Your task to perform on an android device: toggle translation in the chrome app Image 0: 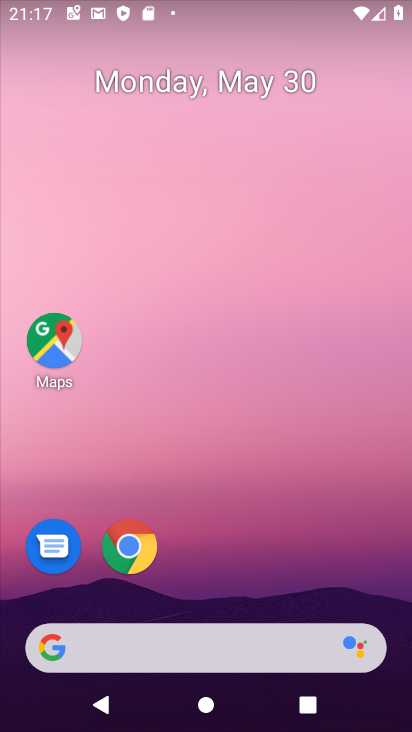
Step 0: drag from (291, 520) to (256, 130)
Your task to perform on an android device: toggle translation in the chrome app Image 1: 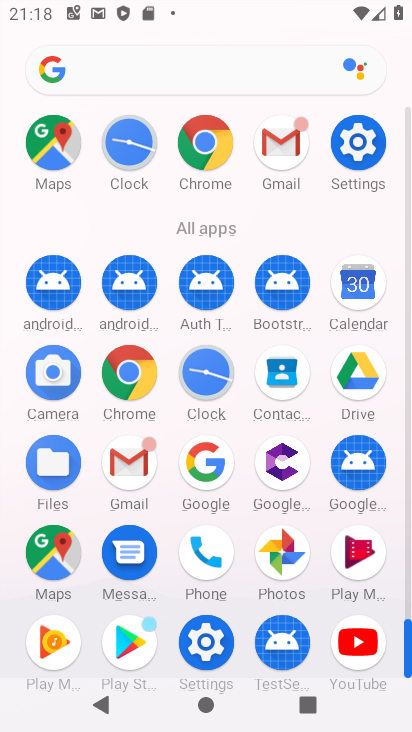
Step 1: click (129, 382)
Your task to perform on an android device: toggle translation in the chrome app Image 2: 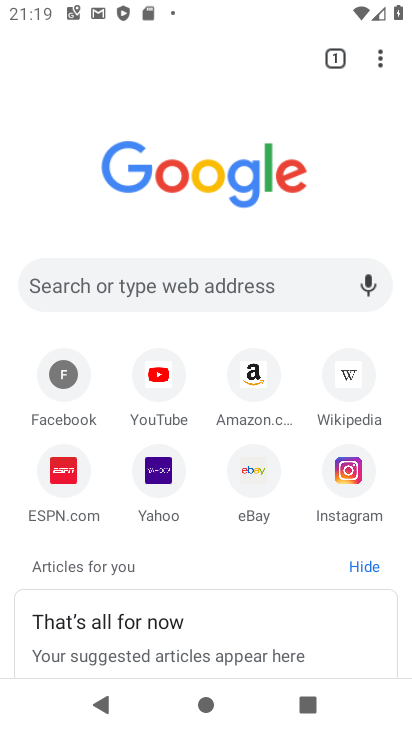
Step 2: drag from (384, 55) to (230, 491)
Your task to perform on an android device: toggle translation in the chrome app Image 3: 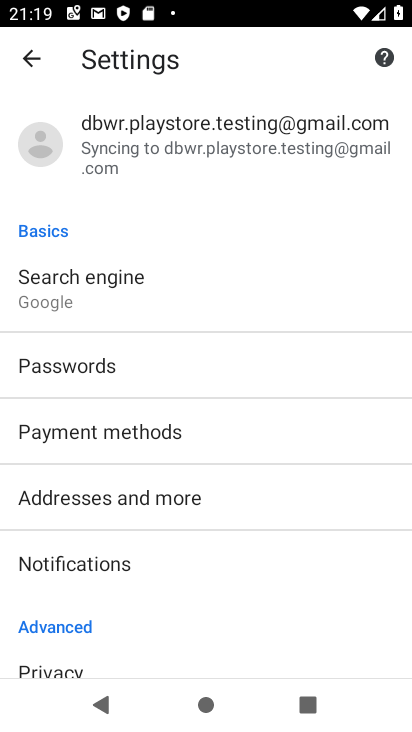
Step 3: drag from (223, 598) to (241, 259)
Your task to perform on an android device: toggle translation in the chrome app Image 4: 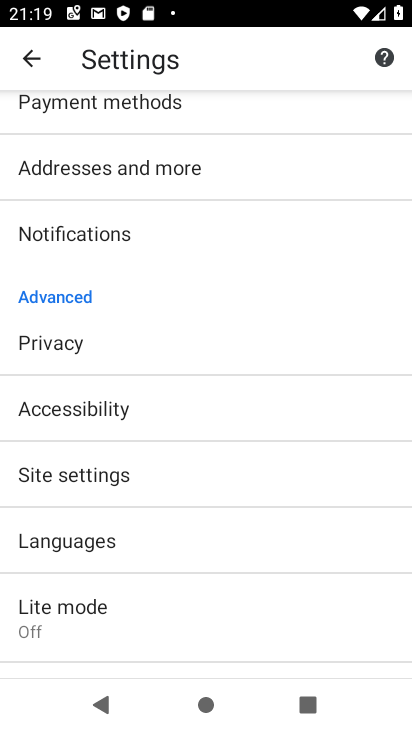
Step 4: drag from (226, 576) to (243, 278)
Your task to perform on an android device: toggle translation in the chrome app Image 5: 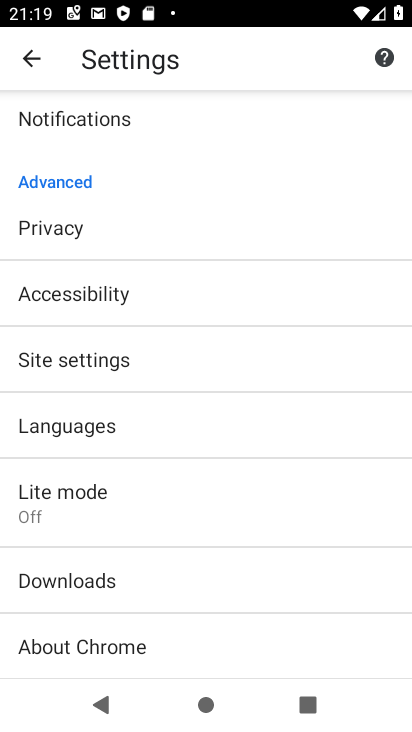
Step 5: drag from (245, 612) to (250, 400)
Your task to perform on an android device: toggle translation in the chrome app Image 6: 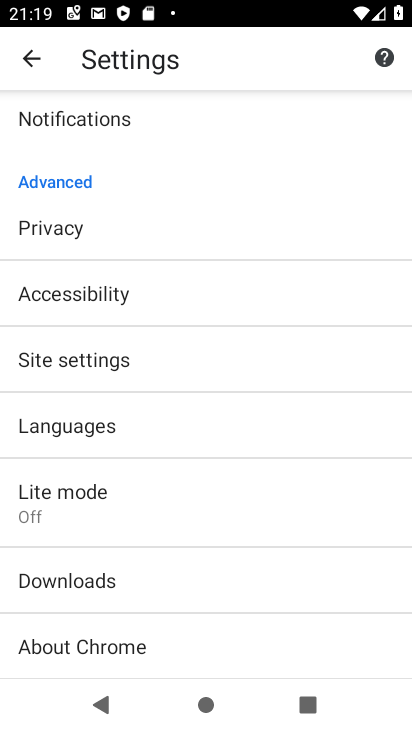
Step 6: drag from (139, 533) to (157, 362)
Your task to perform on an android device: toggle translation in the chrome app Image 7: 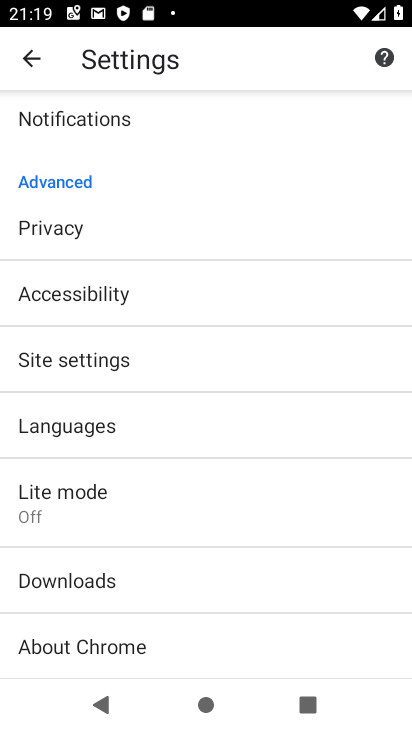
Step 7: click (85, 427)
Your task to perform on an android device: toggle translation in the chrome app Image 8: 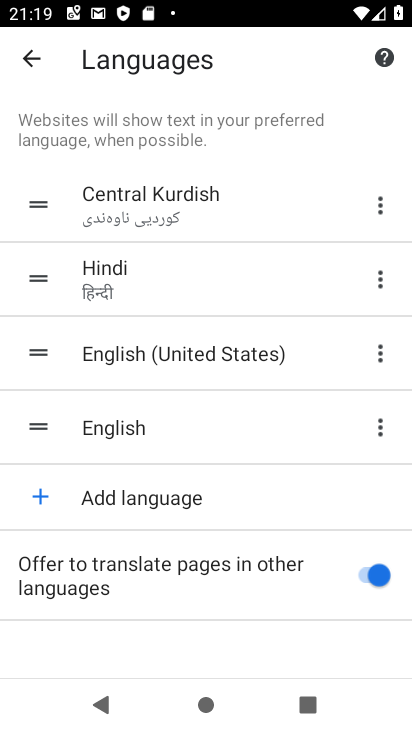
Step 8: click (366, 577)
Your task to perform on an android device: toggle translation in the chrome app Image 9: 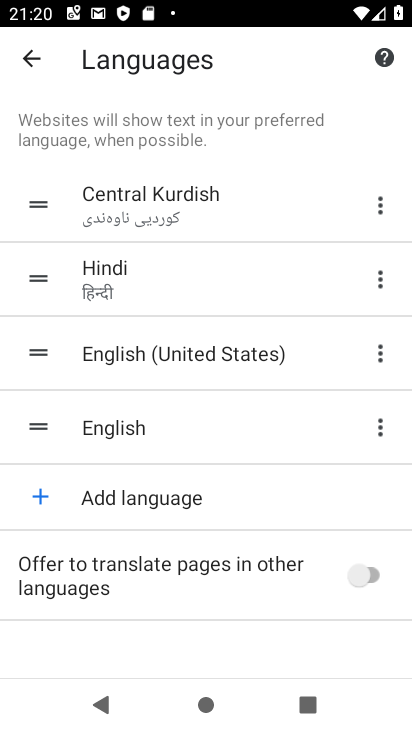
Step 9: task complete